Your task to perform on an android device: Search for razer blade on target, select the first entry, and add it to the cart. Image 0: 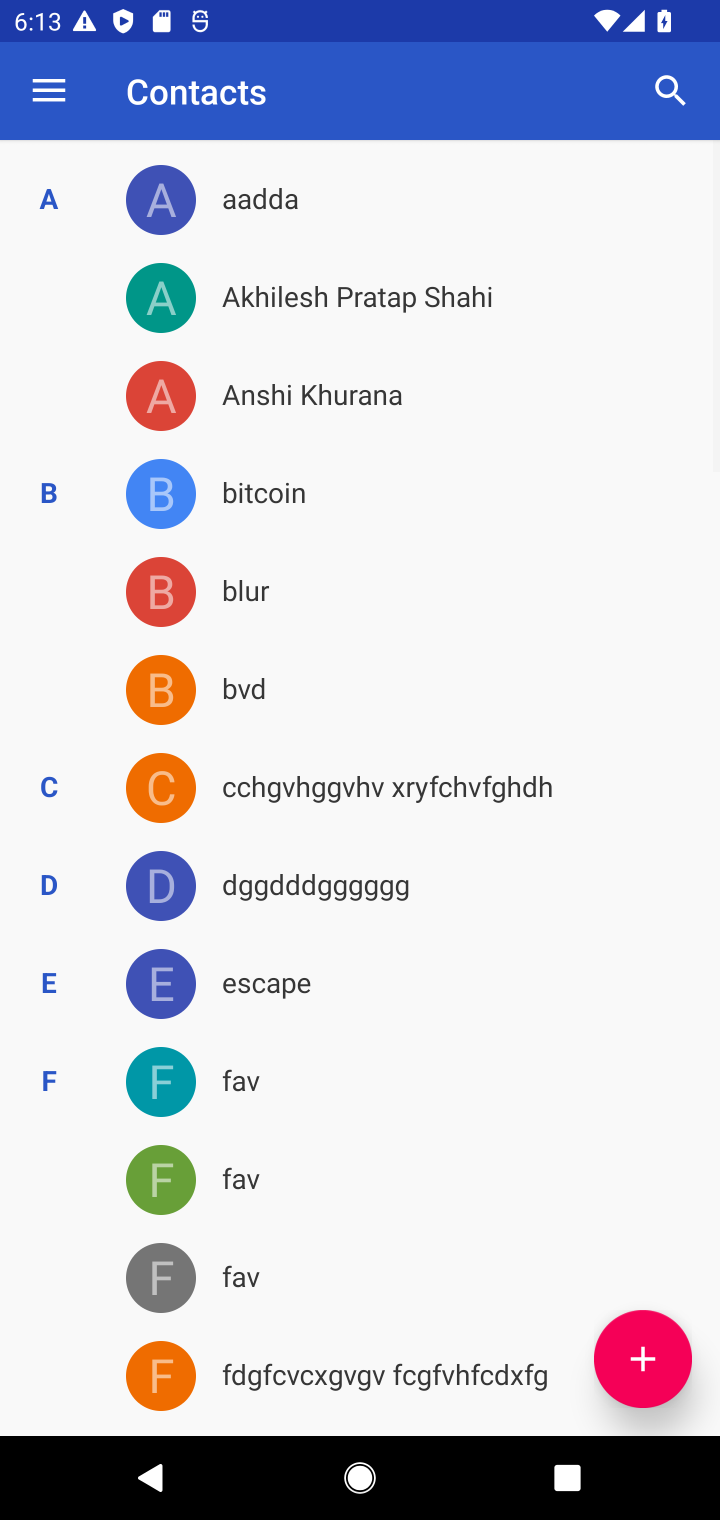
Step 0: press home button
Your task to perform on an android device: Search for razer blade on target, select the first entry, and add it to the cart. Image 1: 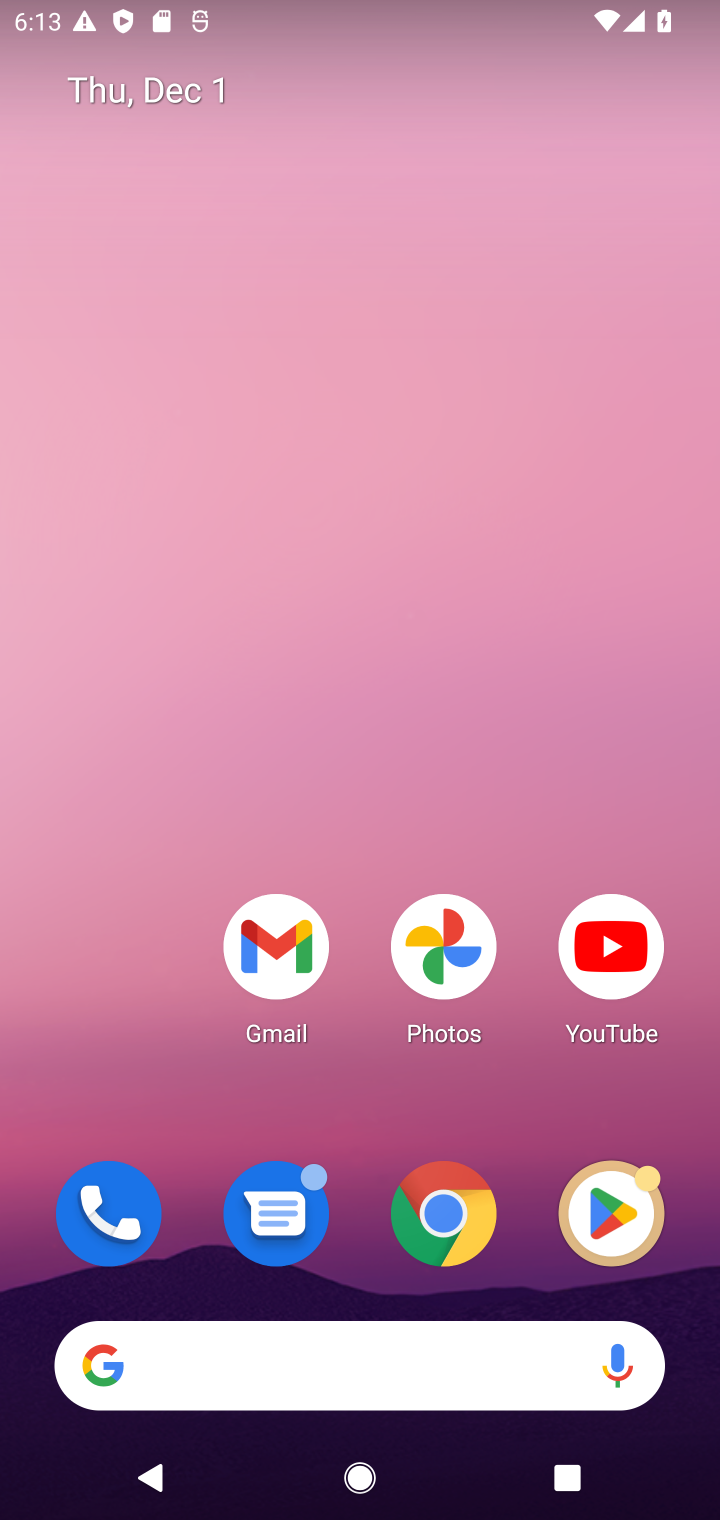
Step 1: click (323, 1357)
Your task to perform on an android device: Search for razer blade on target, select the first entry, and add it to the cart. Image 2: 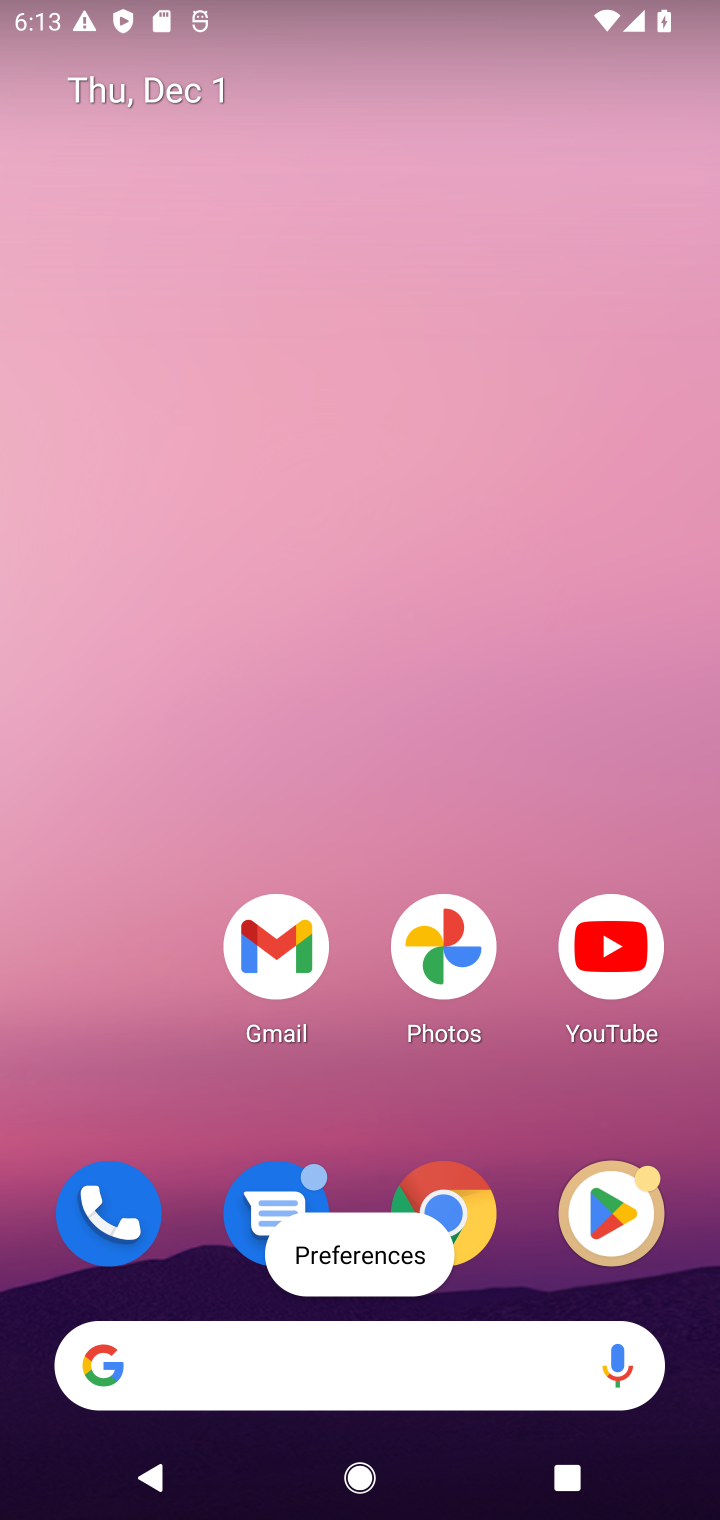
Step 2: click (323, 1357)
Your task to perform on an android device: Search for razer blade on target, select the first entry, and add it to the cart. Image 3: 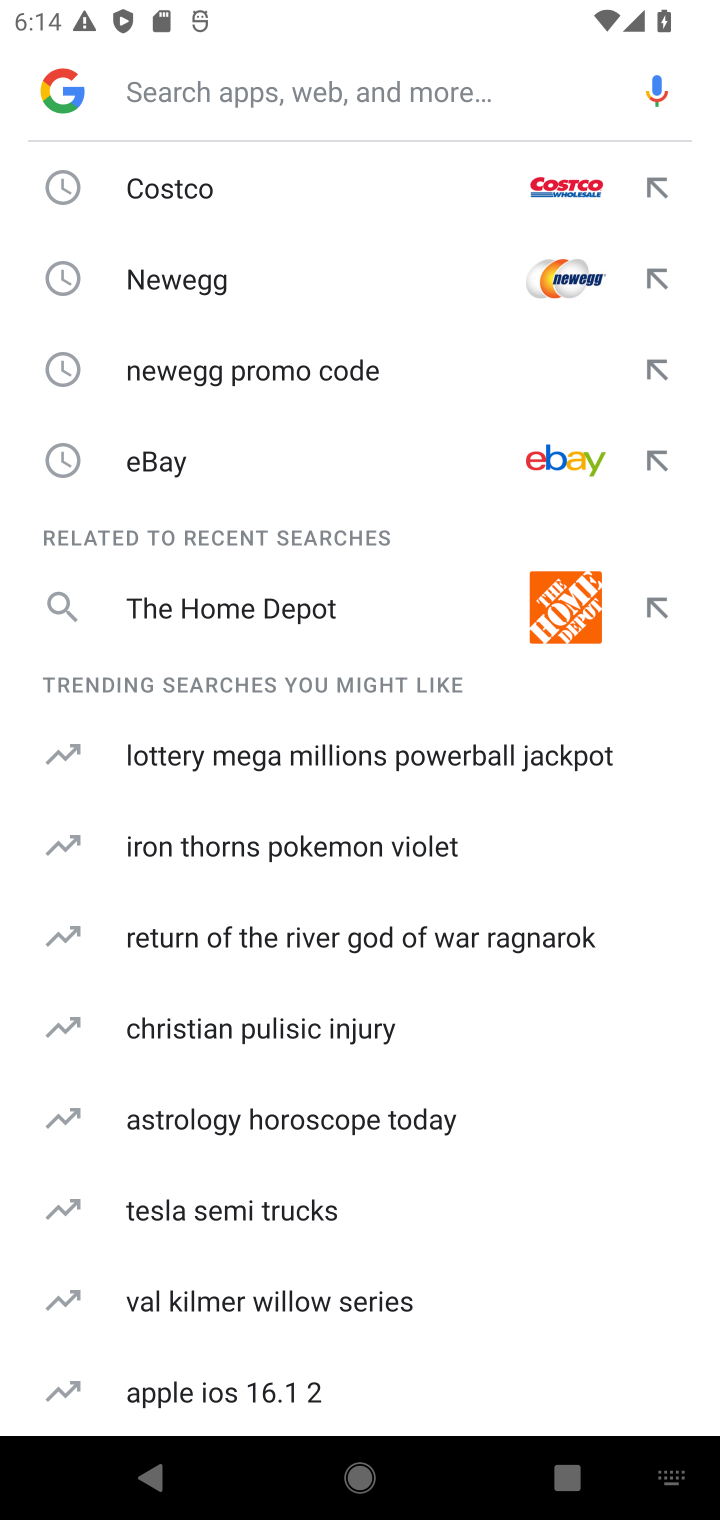
Step 3: type "target"
Your task to perform on an android device: Search for razer blade on target, select the first entry, and add it to the cart. Image 4: 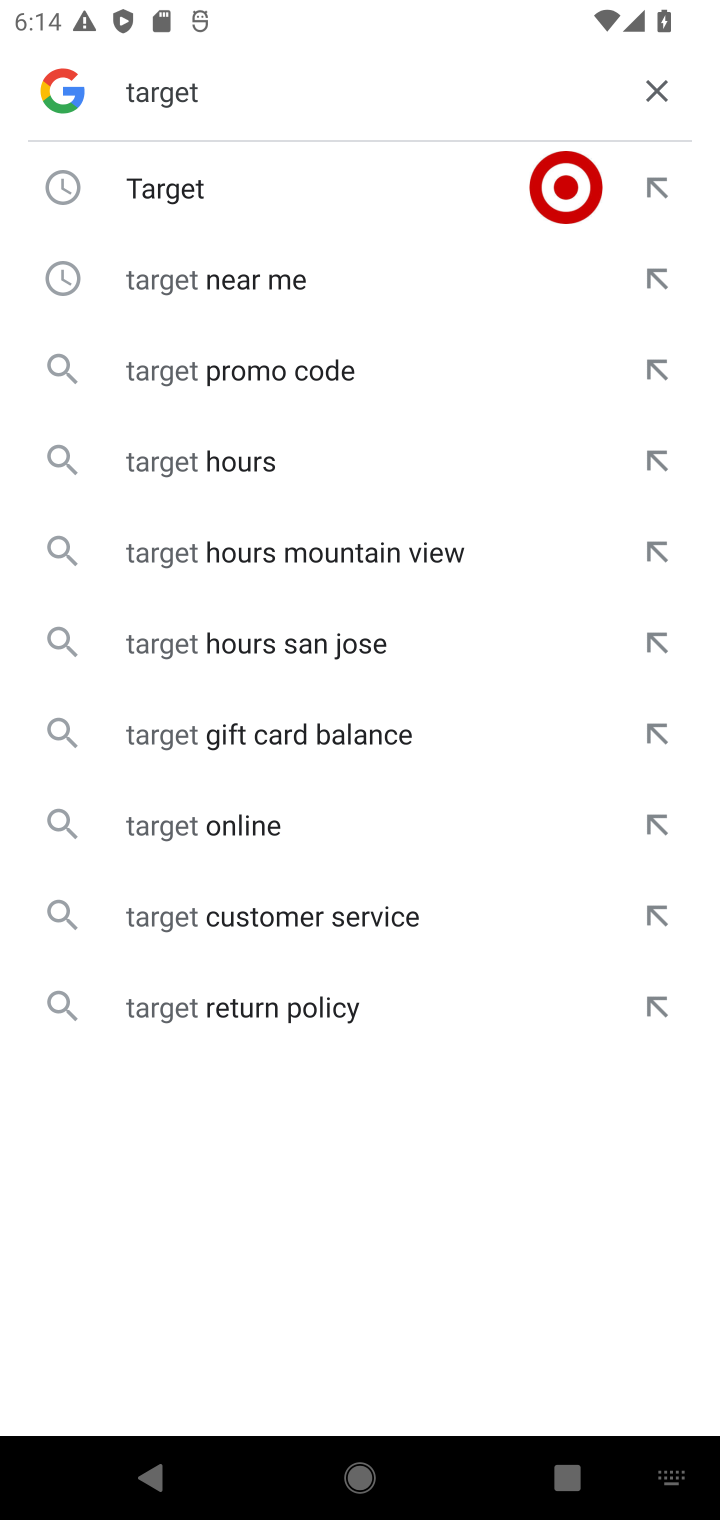
Step 4: click (313, 173)
Your task to perform on an android device: Search for razer blade on target, select the first entry, and add it to the cart. Image 5: 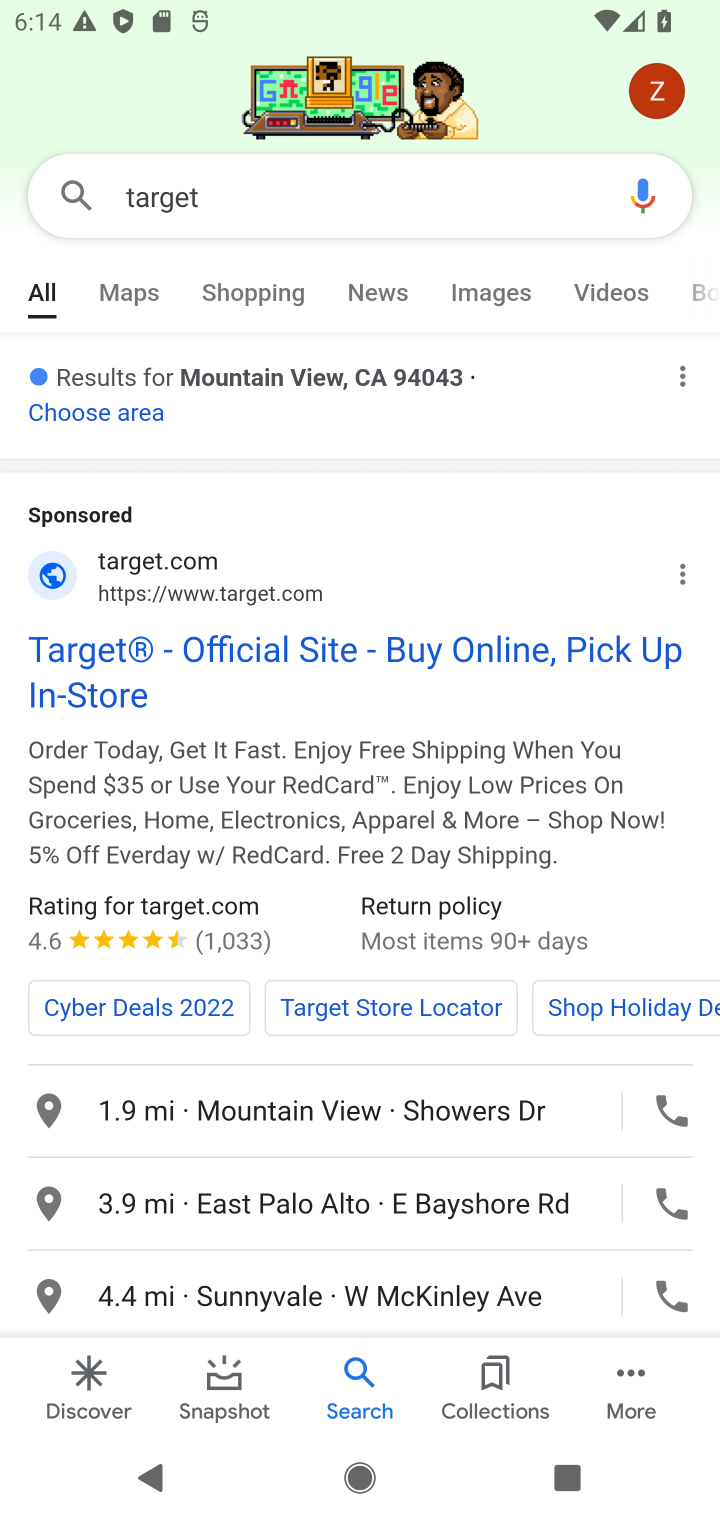
Step 5: click (144, 665)
Your task to perform on an android device: Search for razer blade on target, select the first entry, and add it to the cart. Image 6: 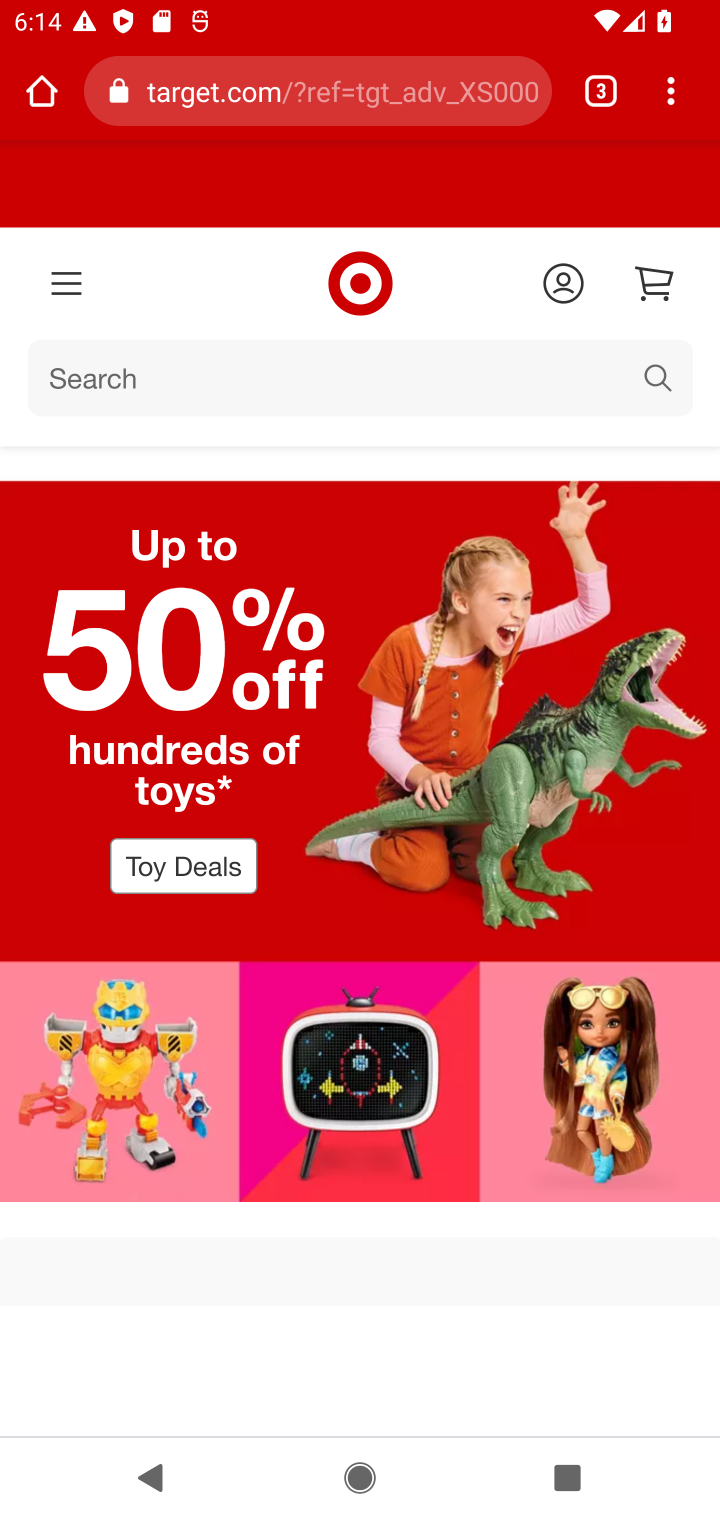
Step 6: click (216, 393)
Your task to perform on an android device: Search for razer blade on target, select the first entry, and add it to the cart. Image 7: 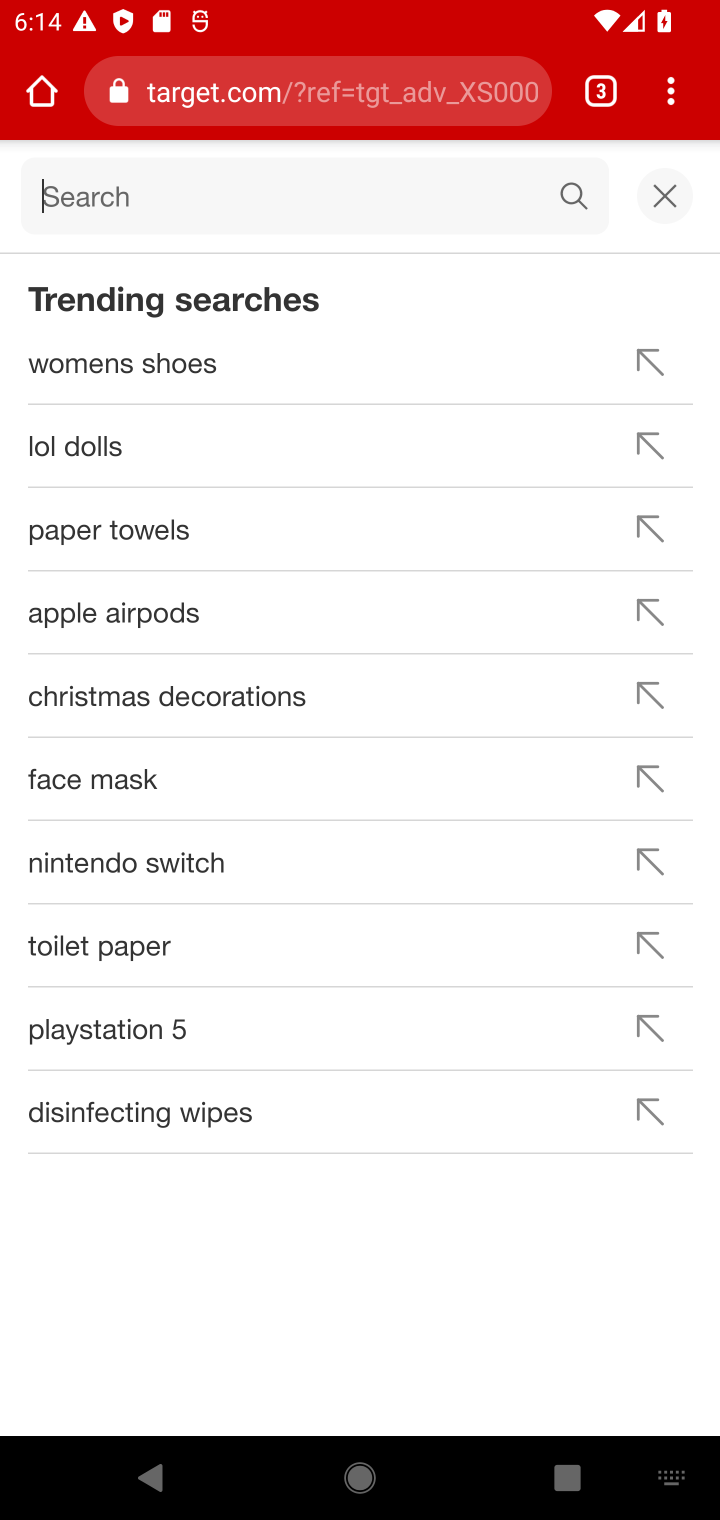
Step 7: type "razer blade"
Your task to perform on an android device: Search for razer blade on target, select the first entry, and add it to the cart. Image 8: 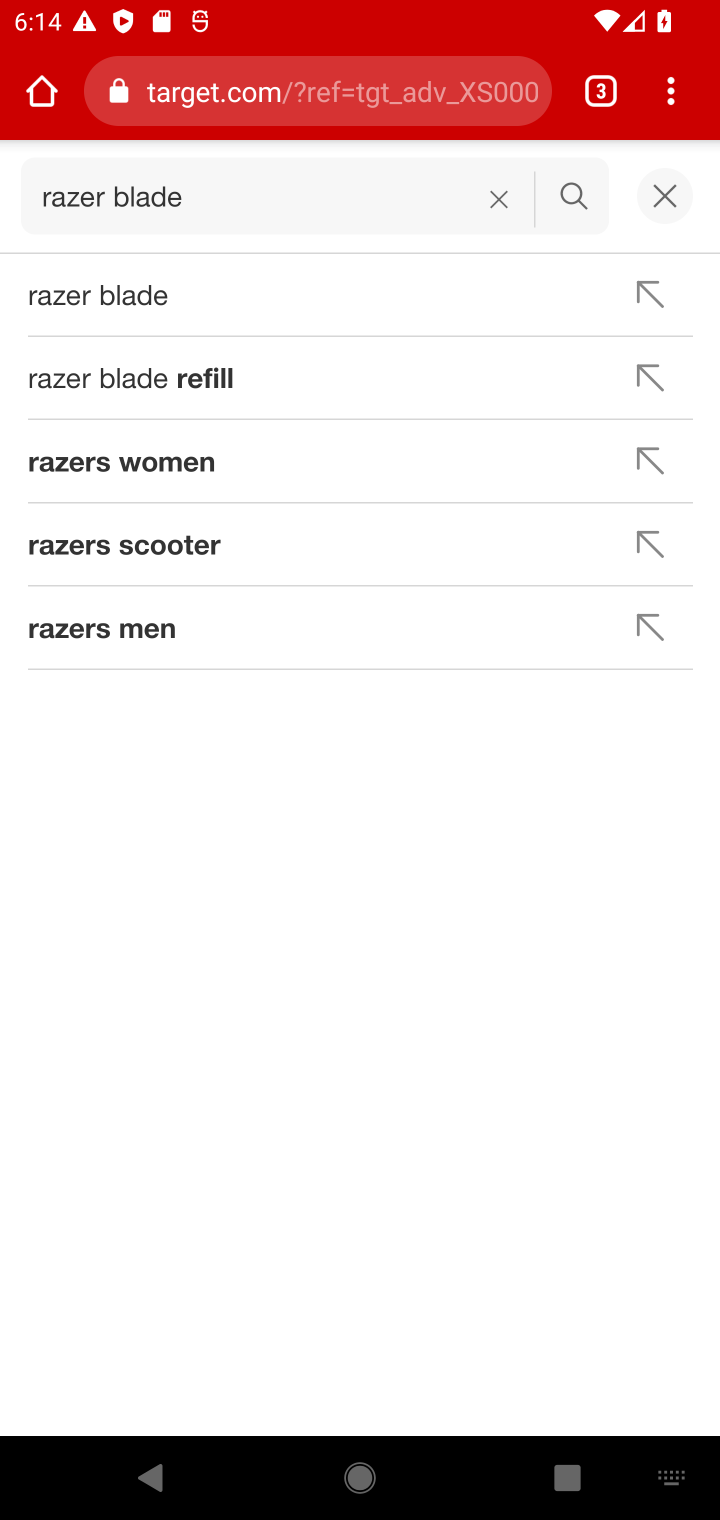
Step 8: click (189, 301)
Your task to perform on an android device: Search for razer blade on target, select the first entry, and add it to the cart. Image 9: 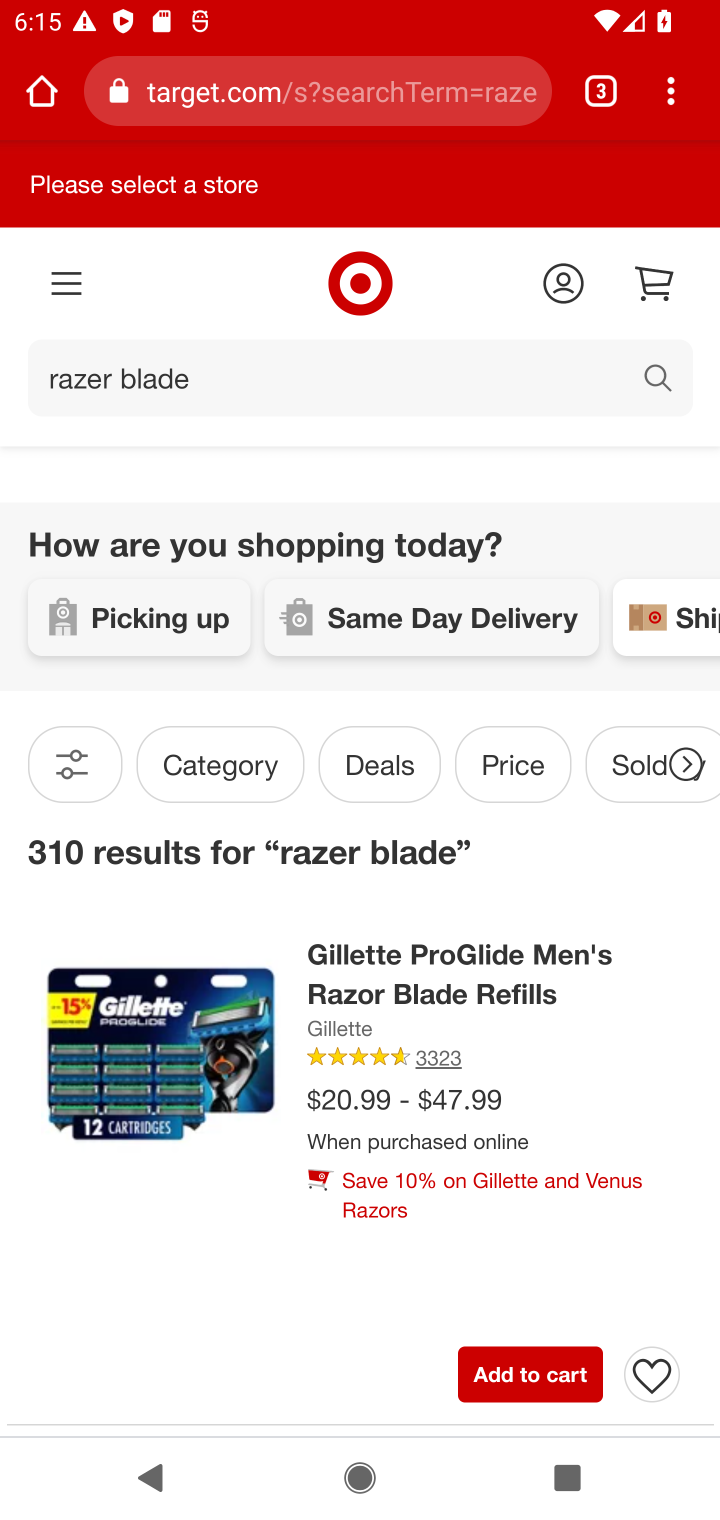
Step 9: click (542, 1387)
Your task to perform on an android device: Search for razer blade on target, select the first entry, and add it to the cart. Image 10: 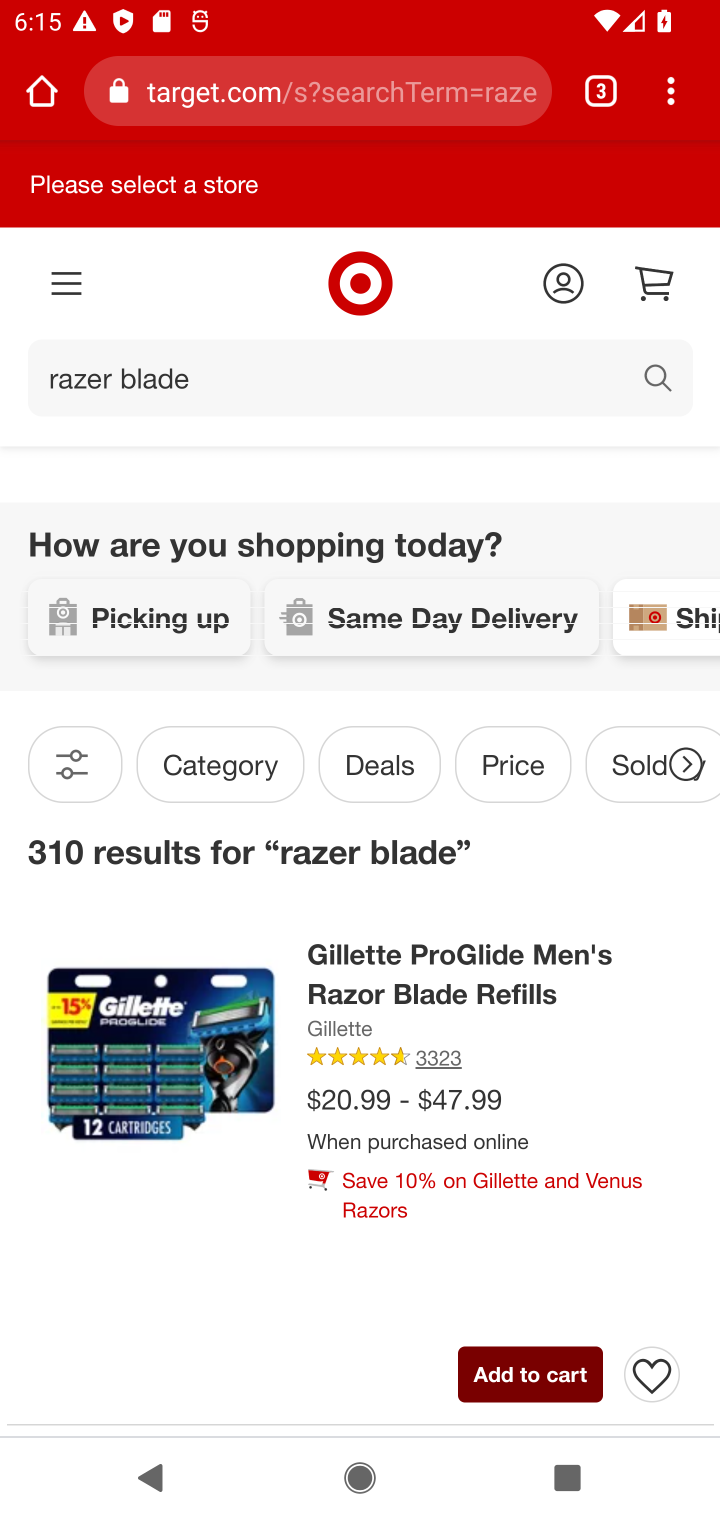
Step 10: task complete